Your task to perform on an android device: Open network settings Image 0: 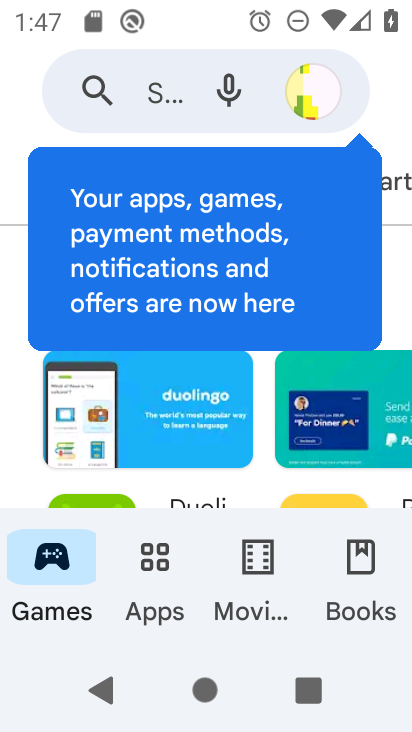
Step 0: press home button
Your task to perform on an android device: Open network settings Image 1: 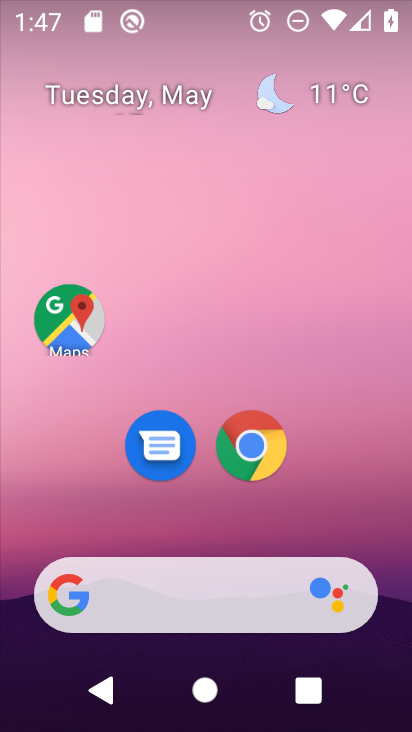
Step 1: drag from (327, 363) to (304, 100)
Your task to perform on an android device: Open network settings Image 2: 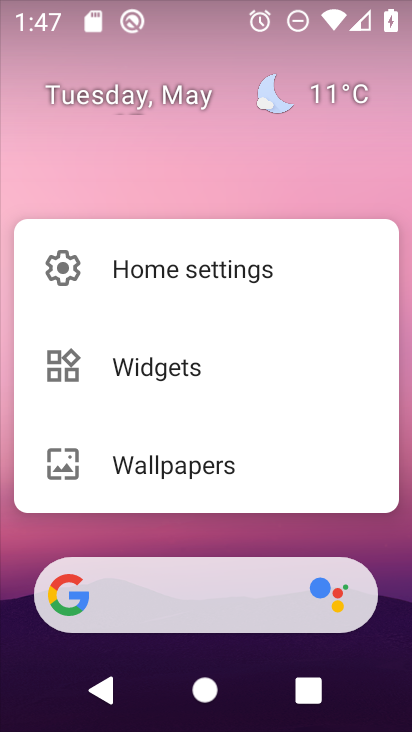
Step 2: drag from (299, 176) to (254, 31)
Your task to perform on an android device: Open network settings Image 3: 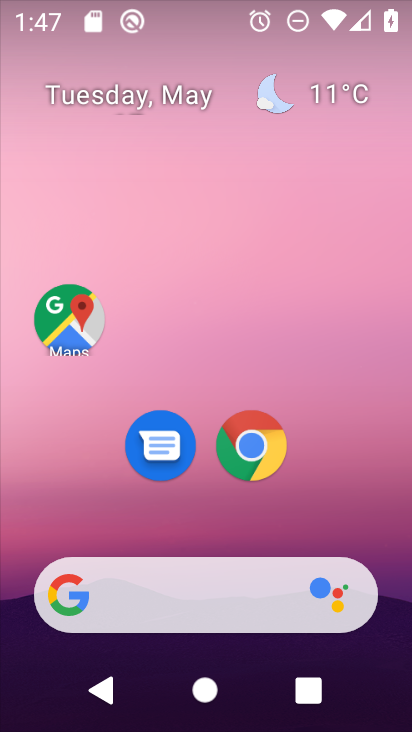
Step 3: drag from (324, 473) to (259, 41)
Your task to perform on an android device: Open network settings Image 4: 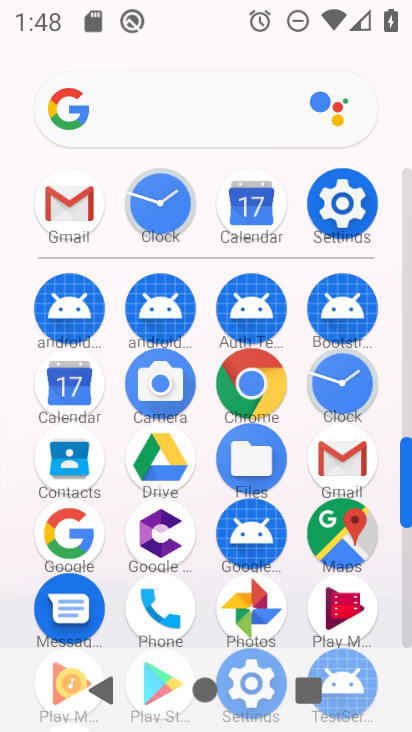
Step 4: click (341, 223)
Your task to perform on an android device: Open network settings Image 5: 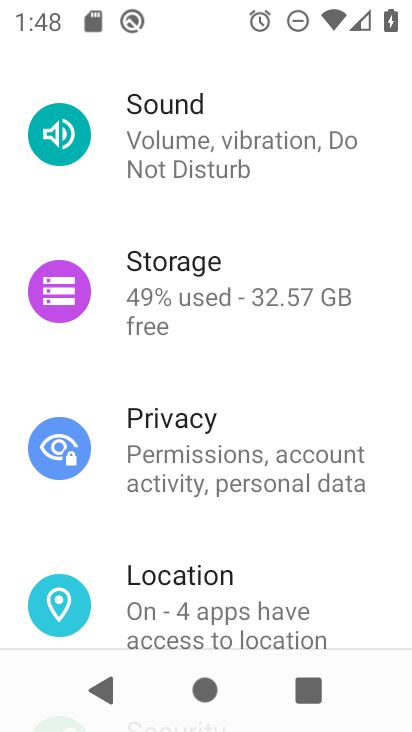
Step 5: drag from (246, 195) to (232, 714)
Your task to perform on an android device: Open network settings Image 6: 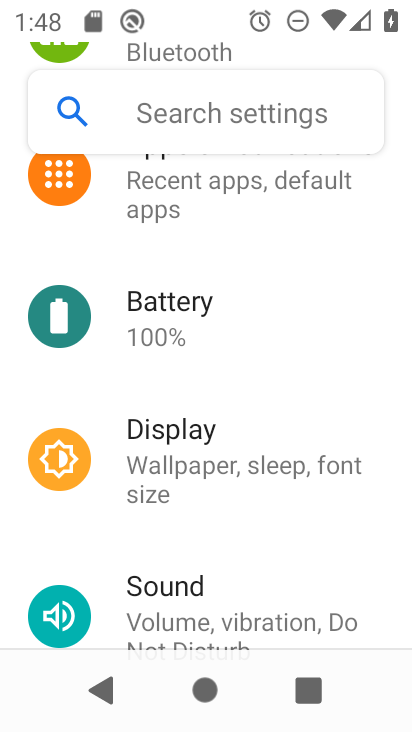
Step 6: drag from (156, 262) to (277, 691)
Your task to perform on an android device: Open network settings Image 7: 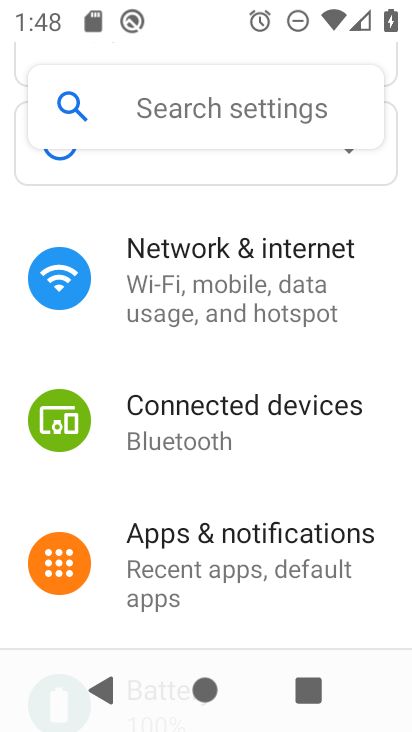
Step 7: click (179, 293)
Your task to perform on an android device: Open network settings Image 8: 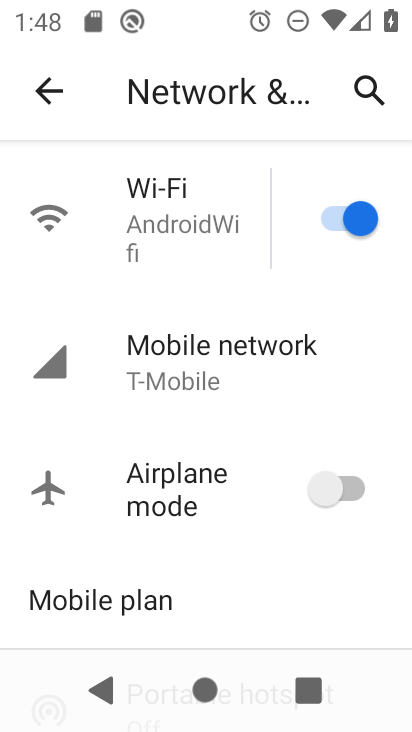
Step 8: task complete